Your task to perform on an android device: Open Wikipedia Image 0: 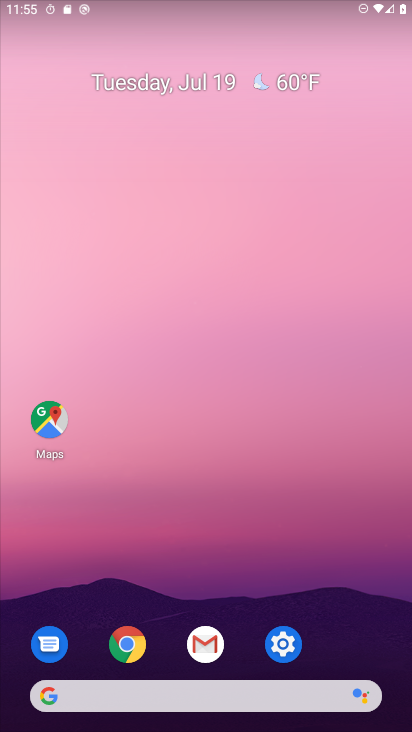
Step 0: drag from (275, 704) to (251, 201)
Your task to perform on an android device: Open Wikipedia Image 1: 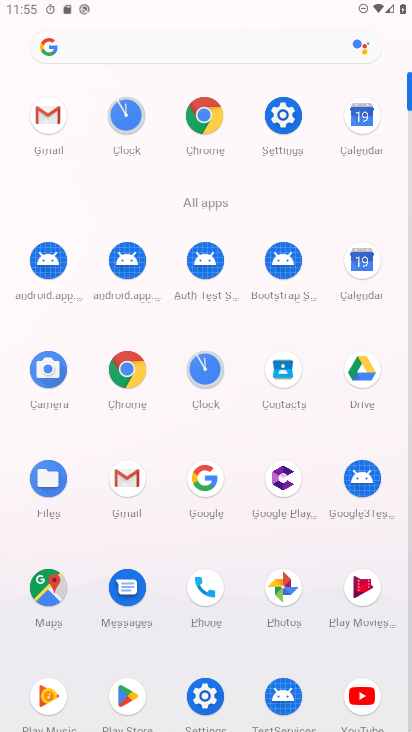
Step 1: click (121, 383)
Your task to perform on an android device: Open Wikipedia Image 2: 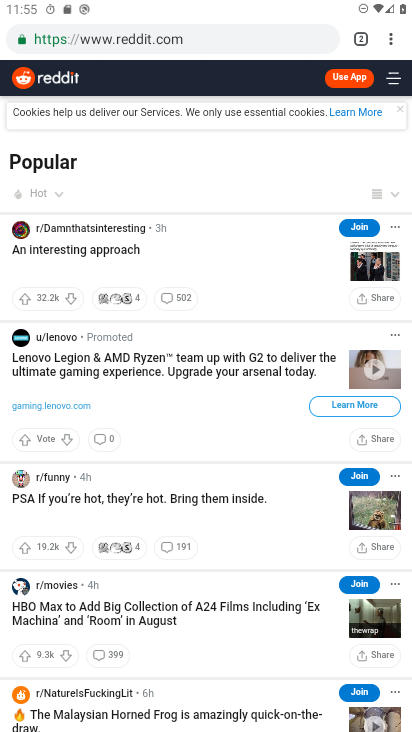
Step 2: click (356, 40)
Your task to perform on an android device: Open Wikipedia Image 3: 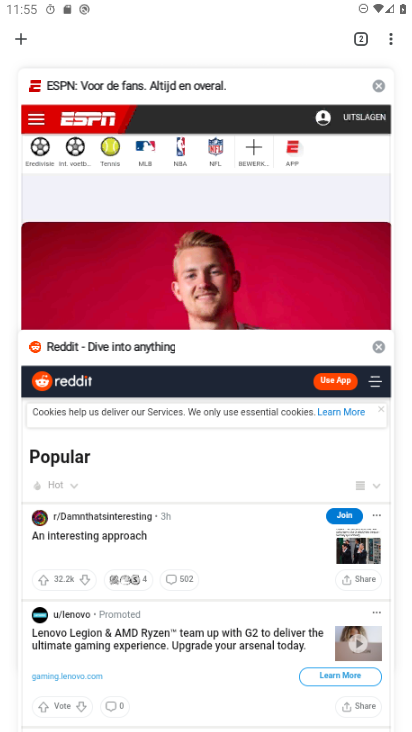
Step 3: click (22, 36)
Your task to perform on an android device: Open Wikipedia Image 4: 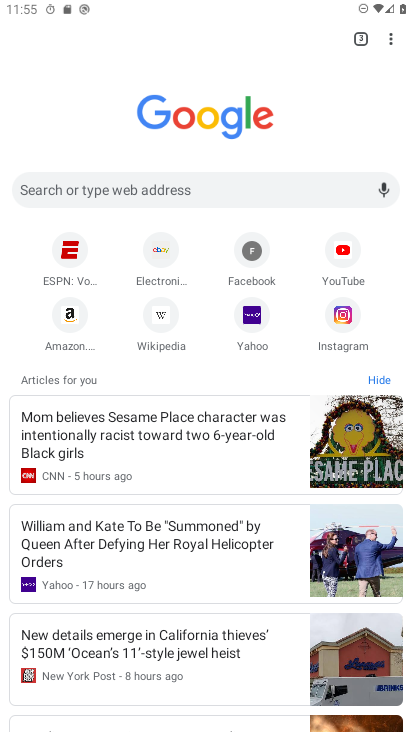
Step 4: click (157, 321)
Your task to perform on an android device: Open Wikipedia Image 5: 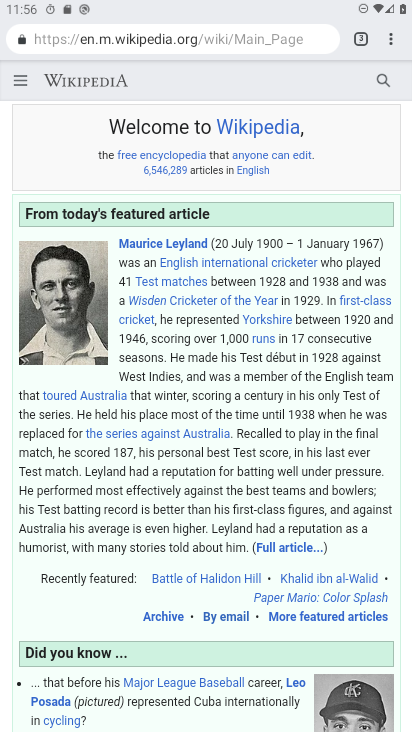
Step 5: task complete